Your task to perform on an android device: turn on javascript in the chrome app Image 0: 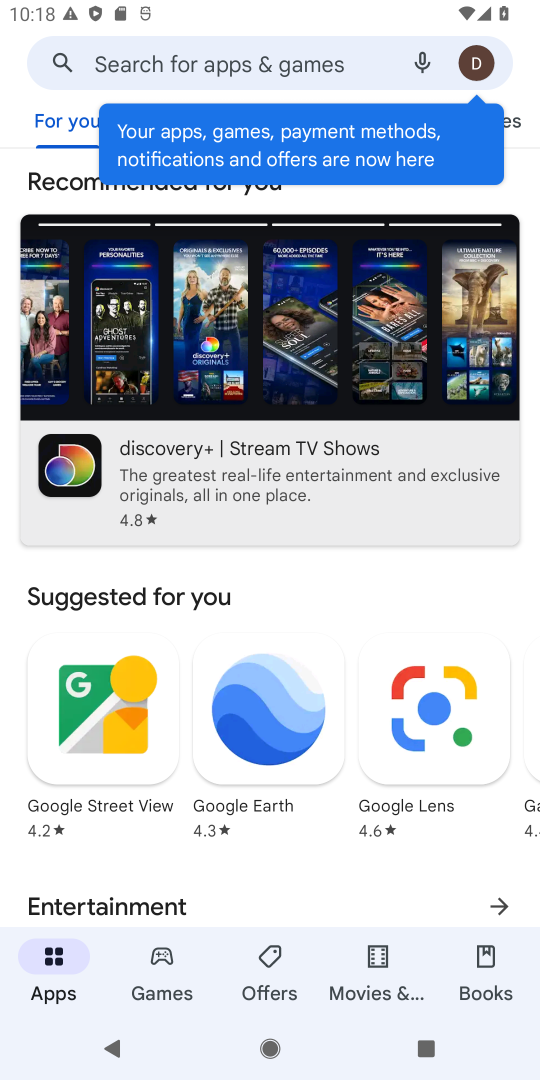
Step 0: press back button
Your task to perform on an android device: turn on javascript in the chrome app Image 1: 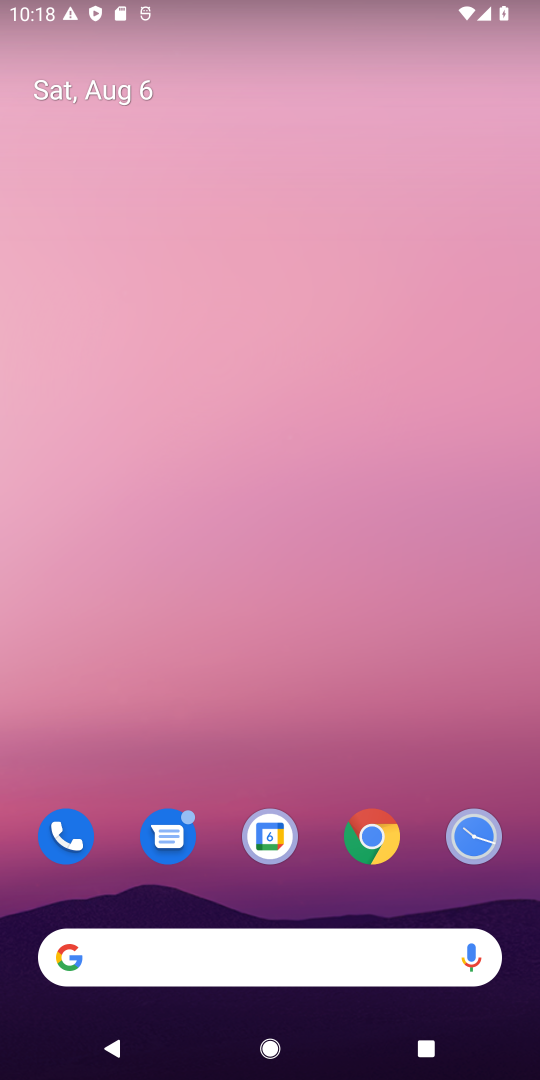
Step 1: click (369, 826)
Your task to perform on an android device: turn on javascript in the chrome app Image 2: 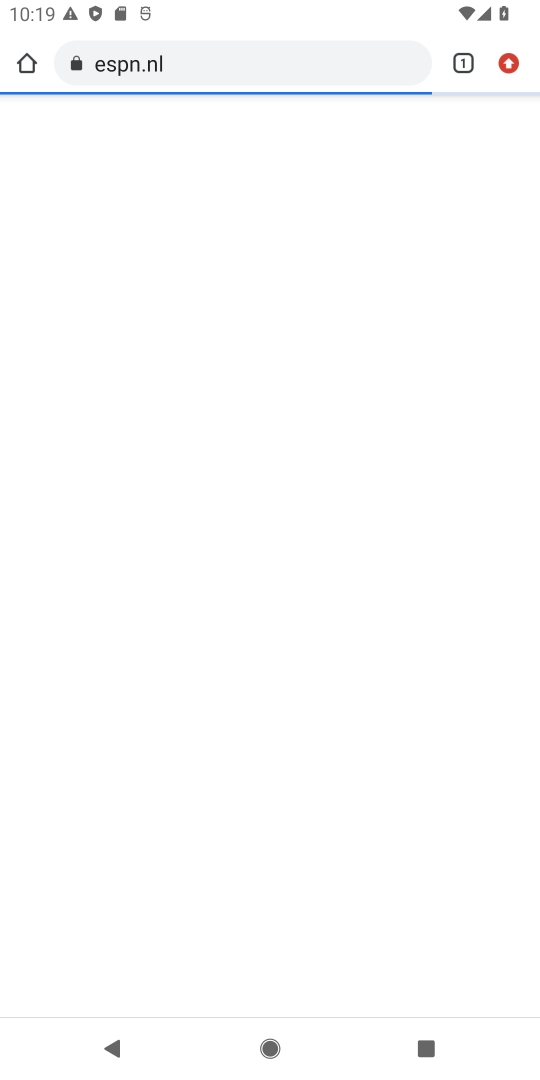
Step 2: click (516, 60)
Your task to perform on an android device: turn on javascript in the chrome app Image 3: 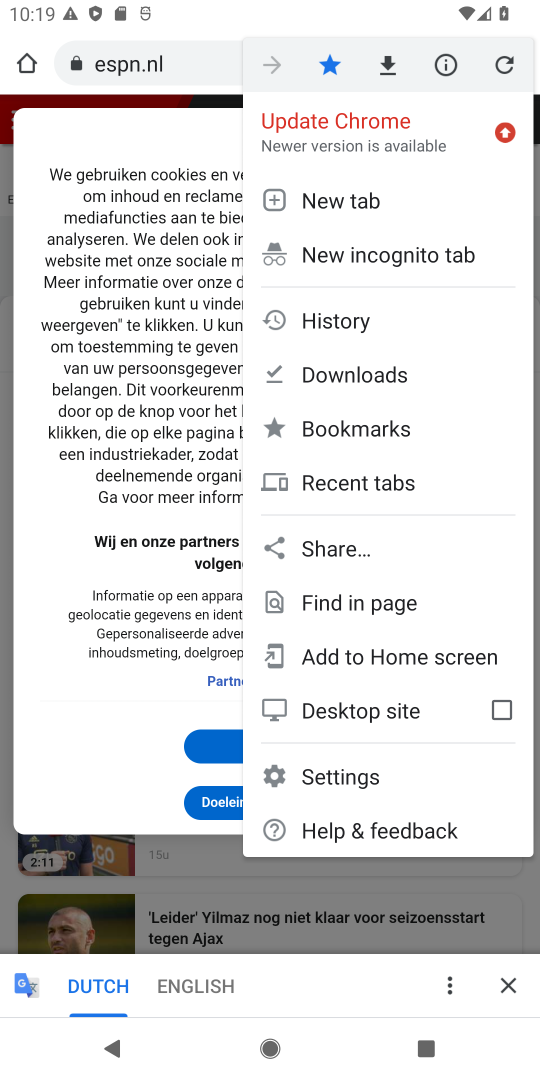
Step 3: click (344, 770)
Your task to perform on an android device: turn on javascript in the chrome app Image 4: 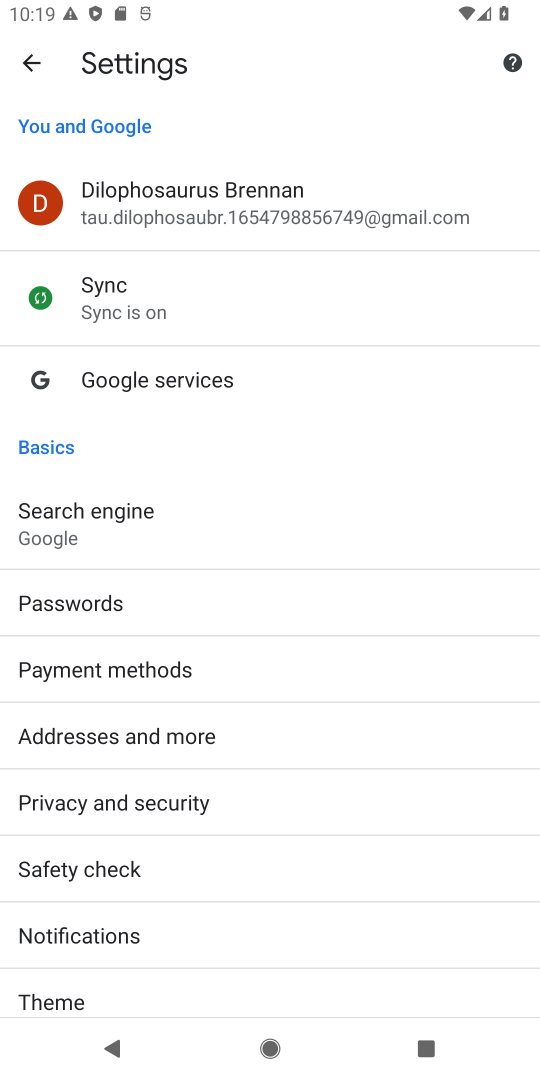
Step 4: drag from (132, 750) to (111, 322)
Your task to perform on an android device: turn on javascript in the chrome app Image 5: 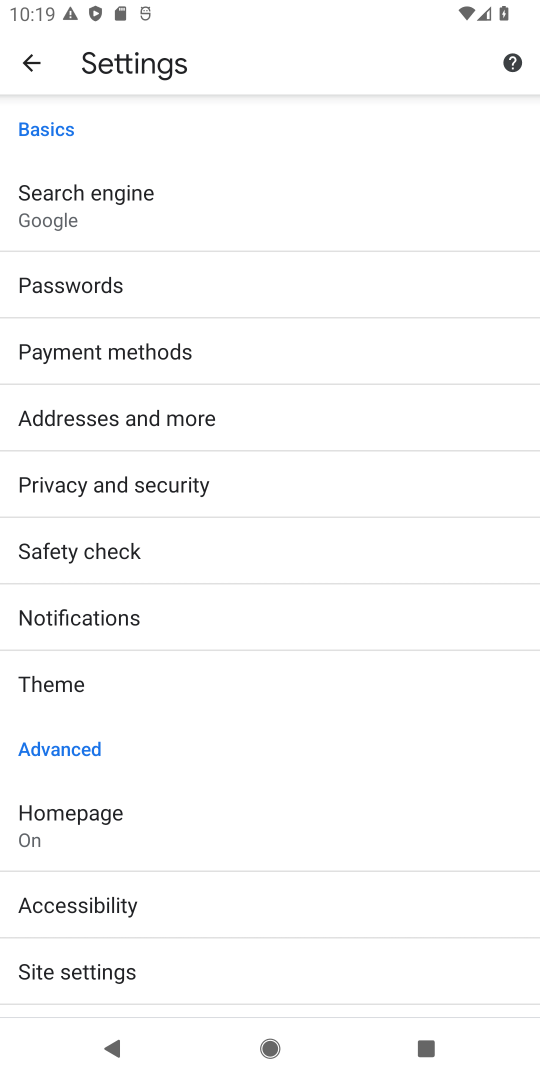
Step 5: click (116, 982)
Your task to perform on an android device: turn on javascript in the chrome app Image 6: 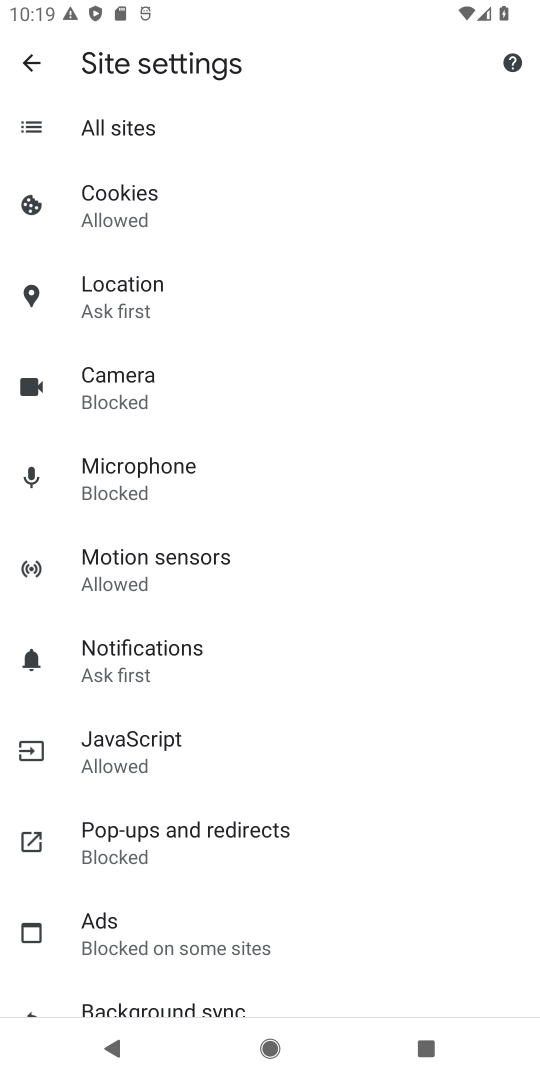
Step 6: click (108, 758)
Your task to perform on an android device: turn on javascript in the chrome app Image 7: 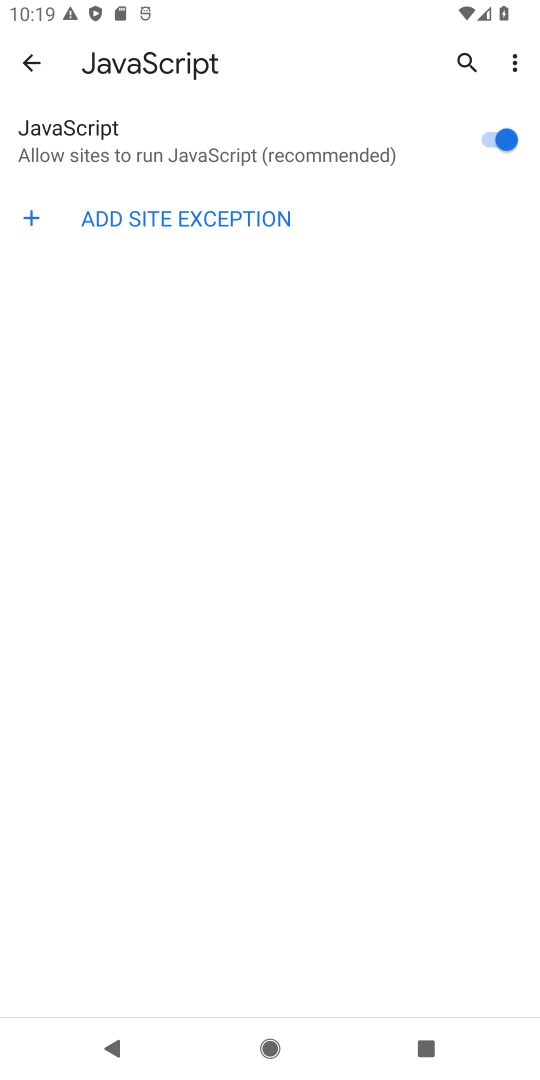
Step 7: task complete